Your task to perform on an android device: Open location settings Image 0: 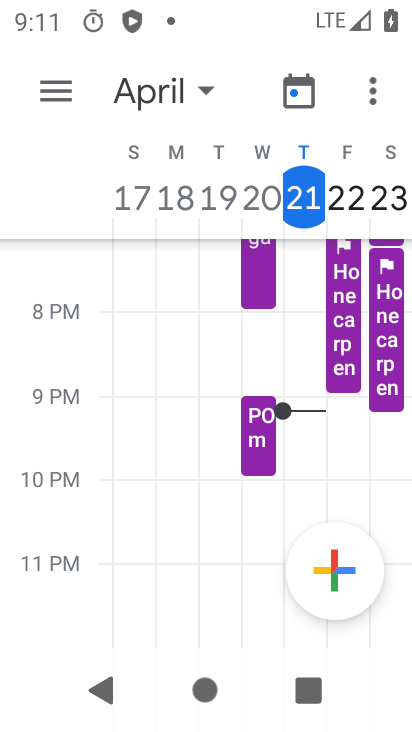
Step 0: press home button
Your task to perform on an android device: Open location settings Image 1: 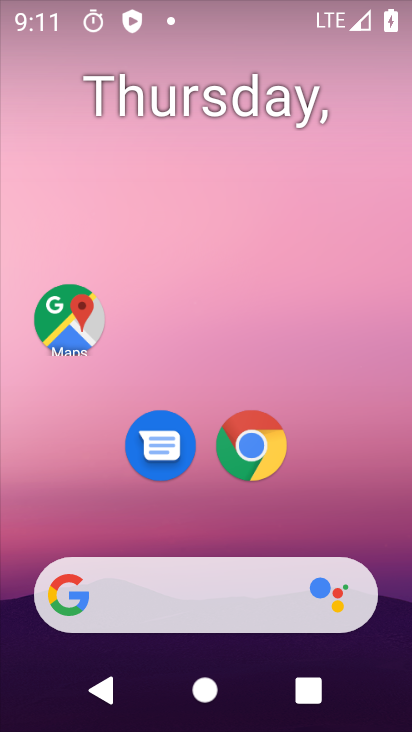
Step 1: drag from (394, 451) to (367, 14)
Your task to perform on an android device: Open location settings Image 2: 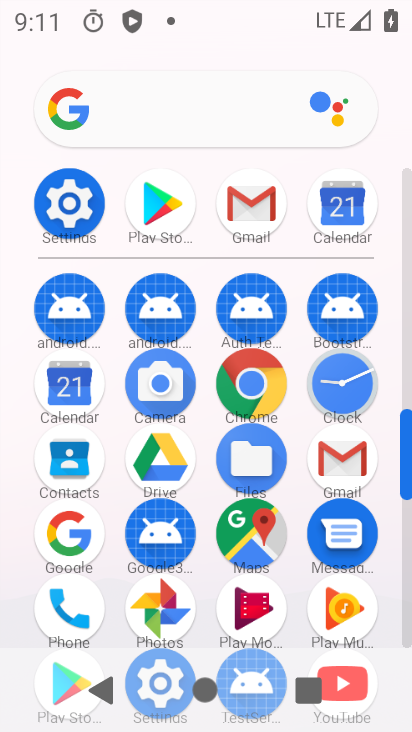
Step 2: click (67, 226)
Your task to perform on an android device: Open location settings Image 3: 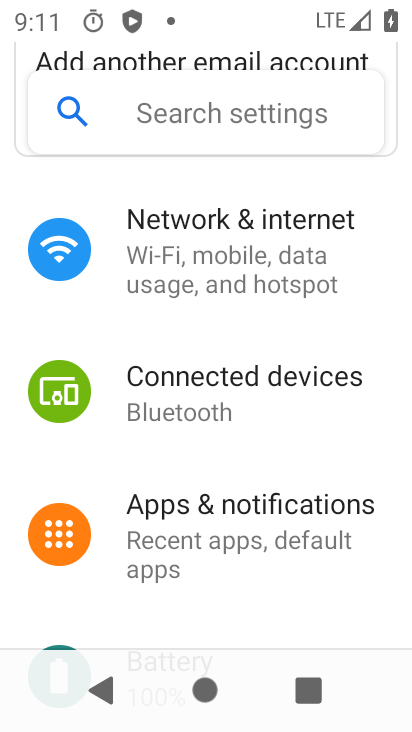
Step 3: drag from (287, 498) to (244, 120)
Your task to perform on an android device: Open location settings Image 4: 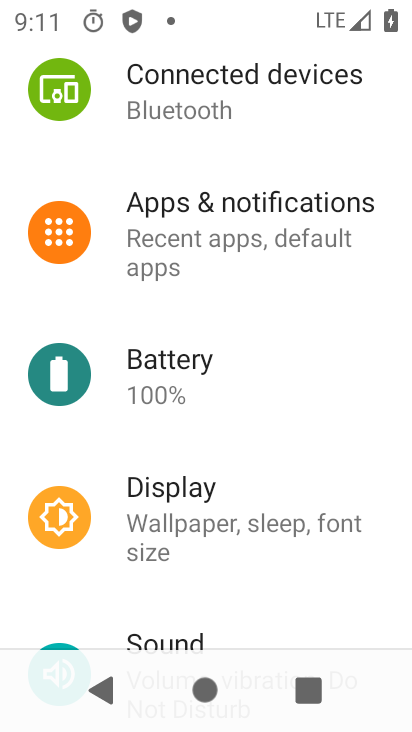
Step 4: drag from (257, 458) to (258, 123)
Your task to perform on an android device: Open location settings Image 5: 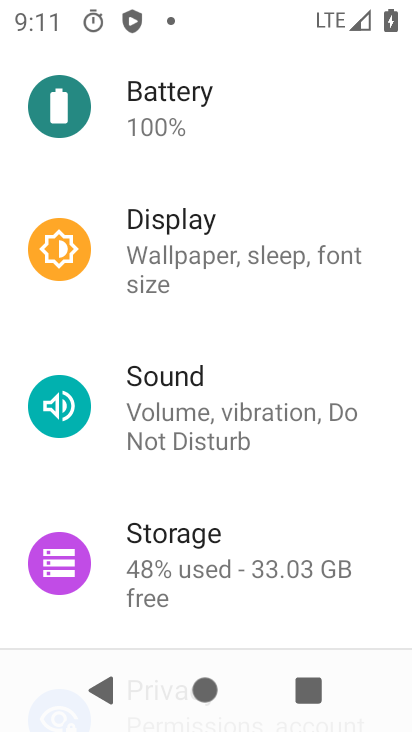
Step 5: drag from (254, 422) to (245, 95)
Your task to perform on an android device: Open location settings Image 6: 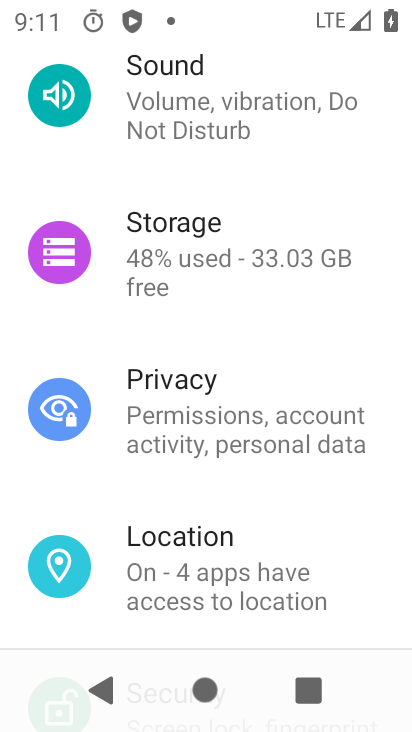
Step 6: click (178, 547)
Your task to perform on an android device: Open location settings Image 7: 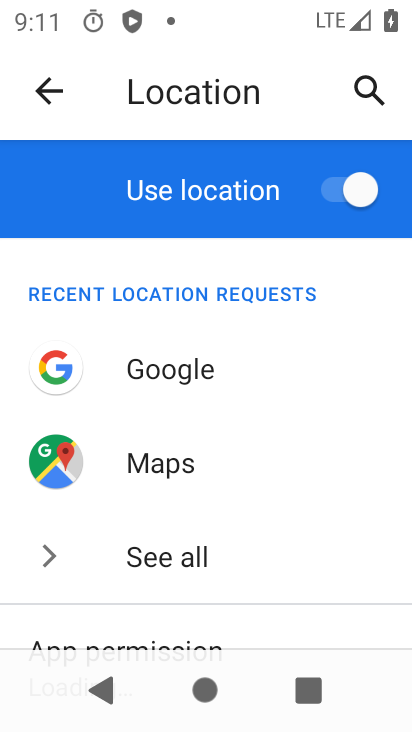
Step 7: task complete